Your task to perform on an android device: add a label to a message in the gmail app Image 0: 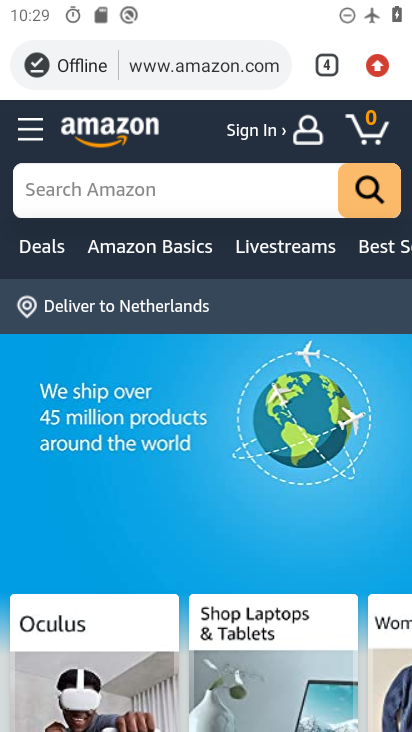
Step 0: press home button
Your task to perform on an android device: add a label to a message in the gmail app Image 1: 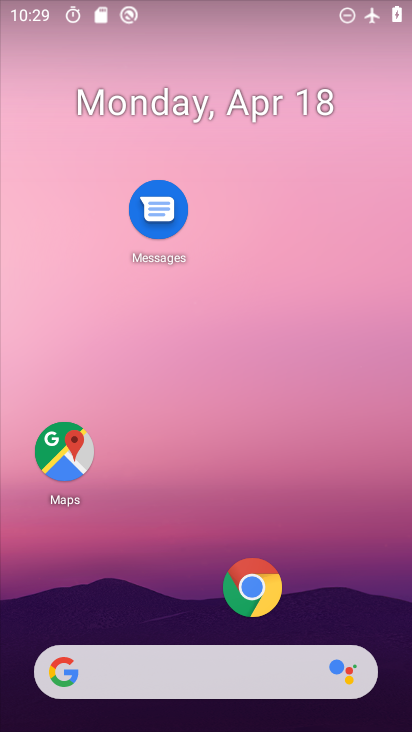
Step 1: drag from (154, 586) to (278, 132)
Your task to perform on an android device: add a label to a message in the gmail app Image 2: 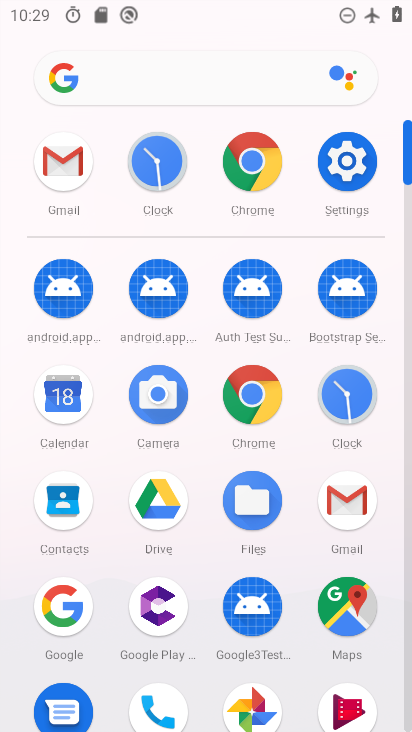
Step 2: click (350, 506)
Your task to perform on an android device: add a label to a message in the gmail app Image 3: 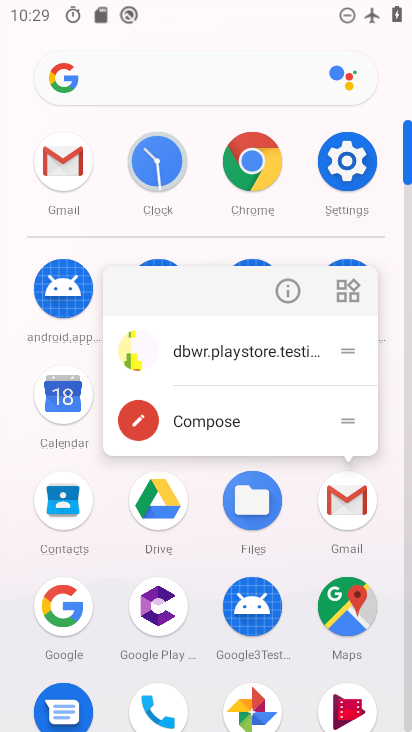
Step 3: click (354, 510)
Your task to perform on an android device: add a label to a message in the gmail app Image 4: 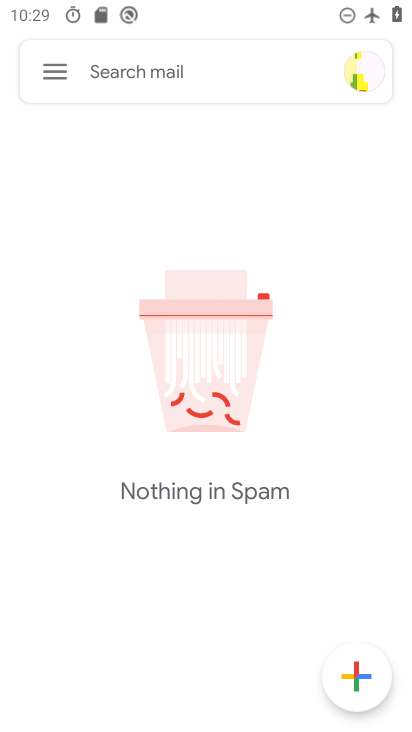
Step 4: click (50, 60)
Your task to perform on an android device: add a label to a message in the gmail app Image 5: 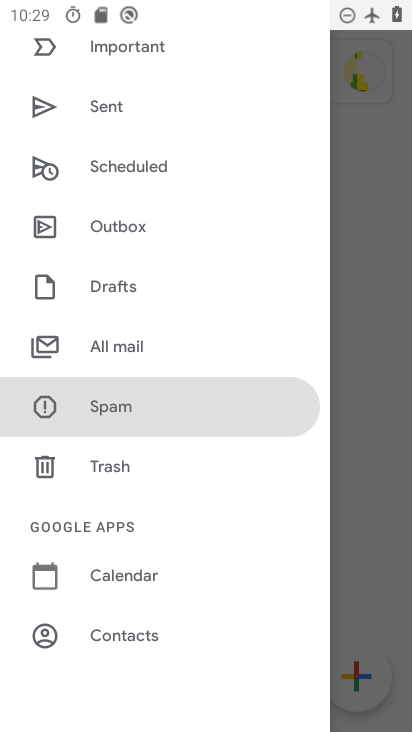
Step 5: click (159, 355)
Your task to perform on an android device: add a label to a message in the gmail app Image 6: 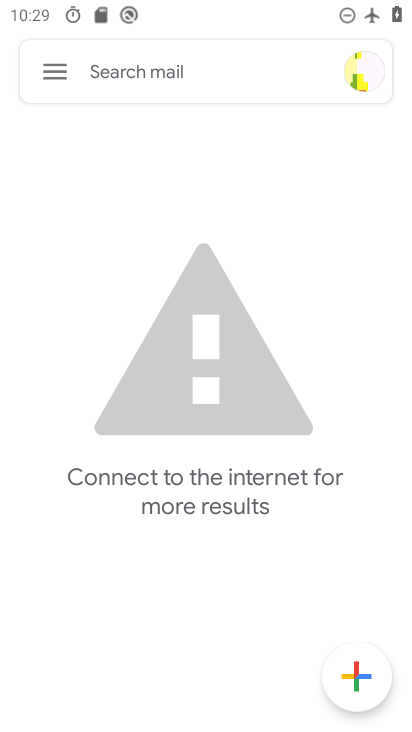
Step 6: task complete